Your task to perform on an android device: stop showing notifications on the lock screen Image 0: 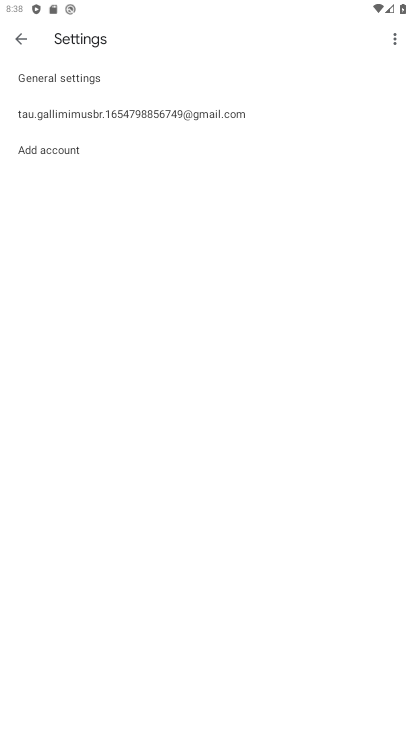
Step 0: press home button
Your task to perform on an android device: stop showing notifications on the lock screen Image 1: 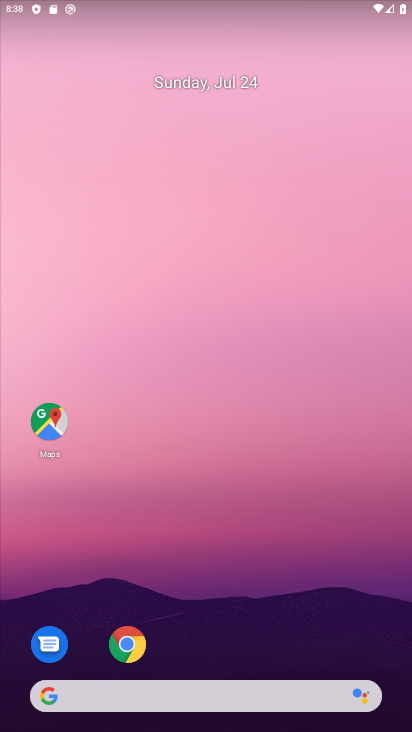
Step 1: drag from (254, 641) to (313, 53)
Your task to perform on an android device: stop showing notifications on the lock screen Image 2: 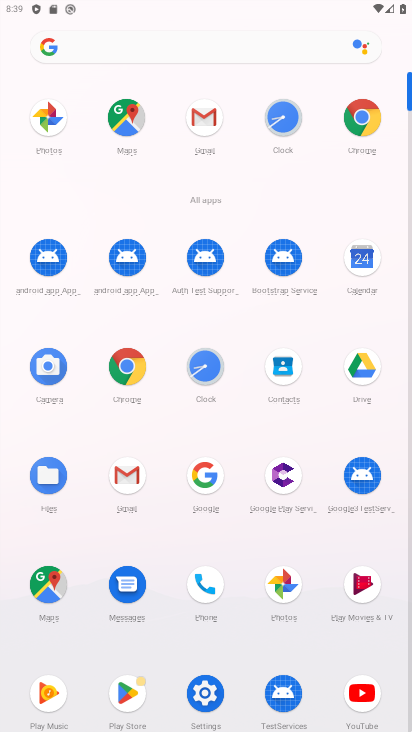
Step 2: click (215, 681)
Your task to perform on an android device: stop showing notifications on the lock screen Image 3: 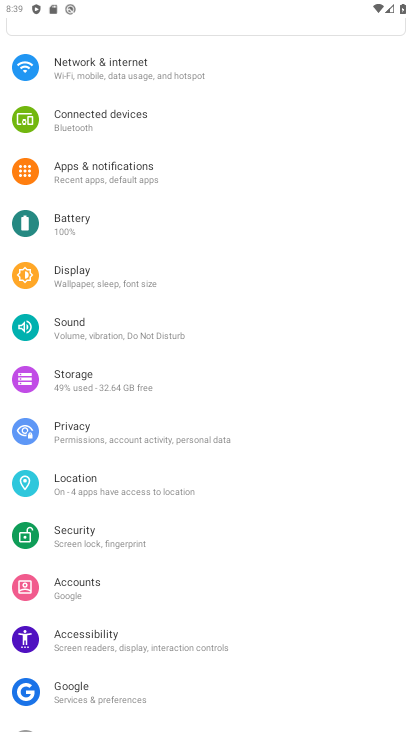
Step 3: click (93, 175)
Your task to perform on an android device: stop showing notifications on the lock screen Image 4: 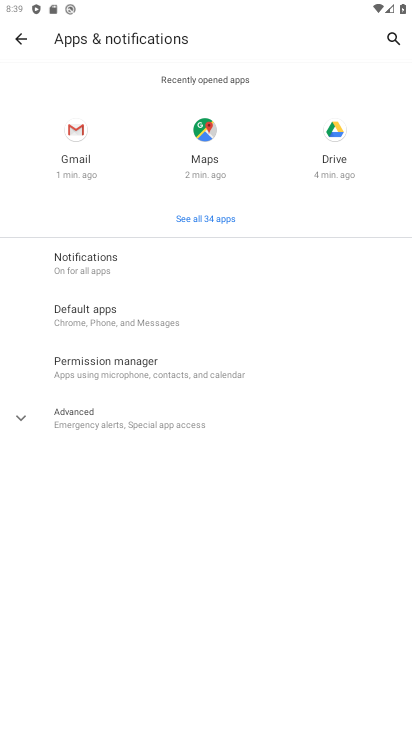
Step 4: click (98, 275)
Your task to perform on an android device: stop showing notifications on the lock screen Image 5: 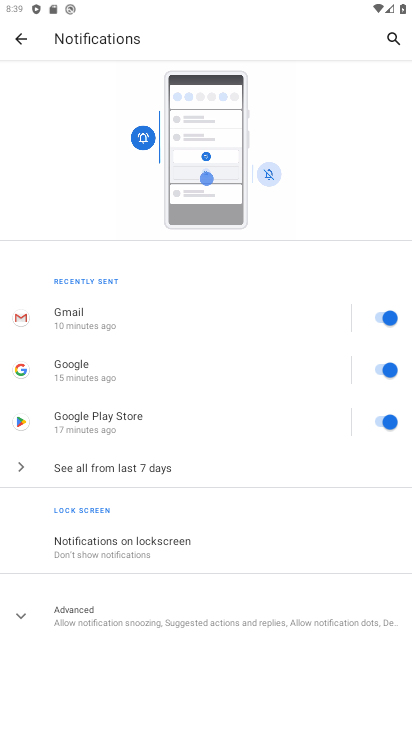
Step 5: click (104, 548)
Your task to perform on an android device: stop showing notifications on the lock screen Image 6: 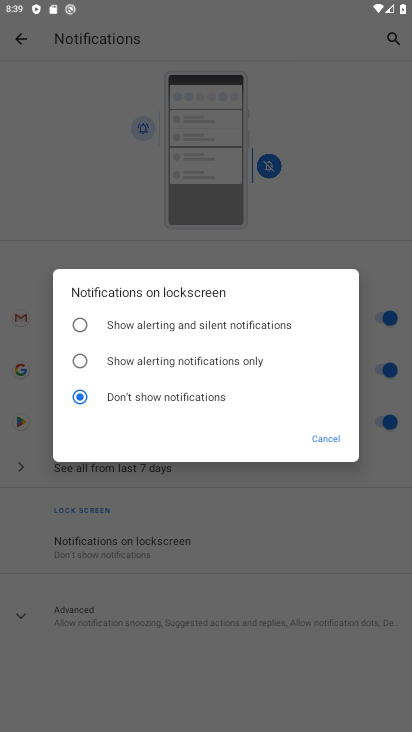
Step 6: task complete